Your task to perform on an android device: turn off location Image 0: 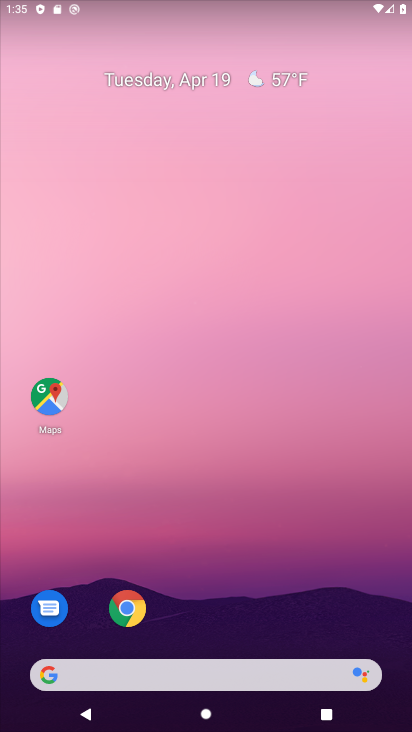
Step 0: drag from (197, 649) to (261, 158)
Your task to perform on an android device: turn off location Image 1: 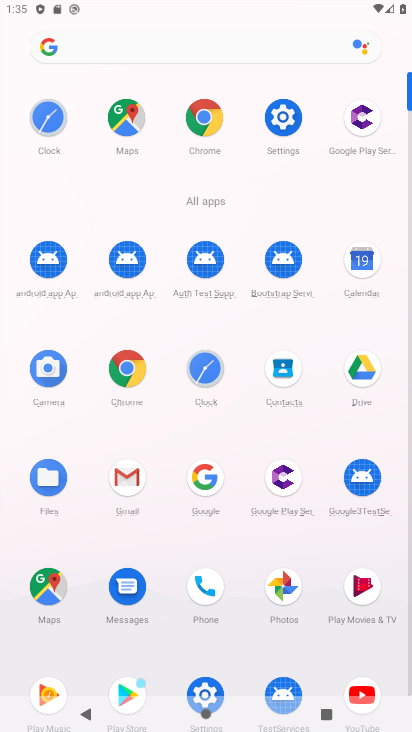
Step 1: click (205, 680)
Your task to perform on an android device: turn off location Image 2: 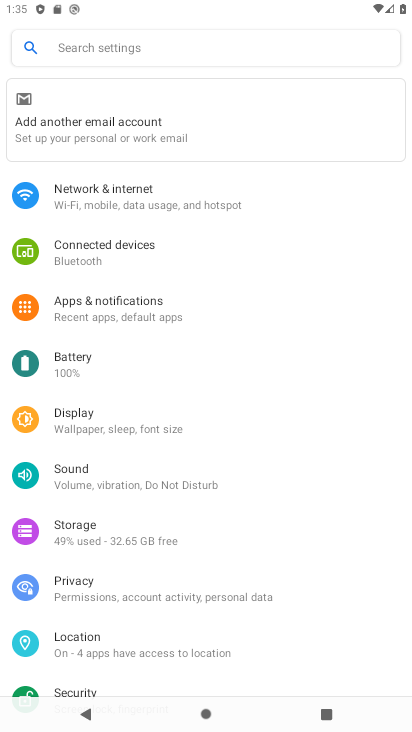
Step 2: click (182, 654)
Your task to perform on an android device: turn off location Image 3: 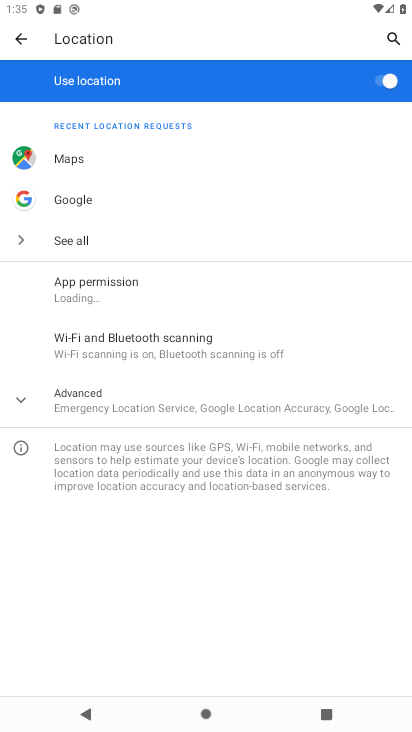
Step 3: click (372, 87)
Your task to perform on an android device: turn off location Image 4: 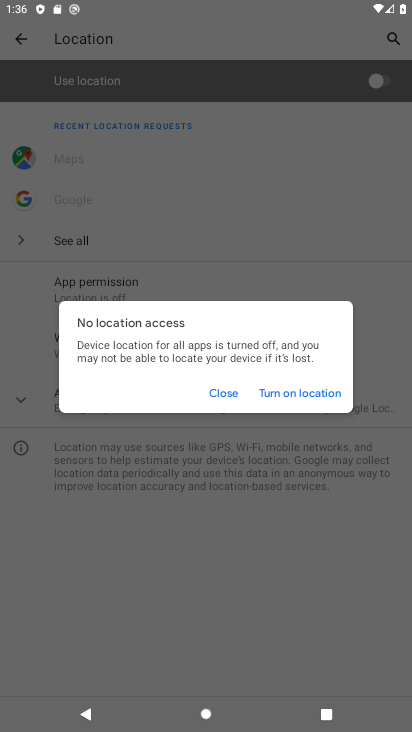
Step 4: press home button
Your task to perform on an android device: turn off location Image 5: 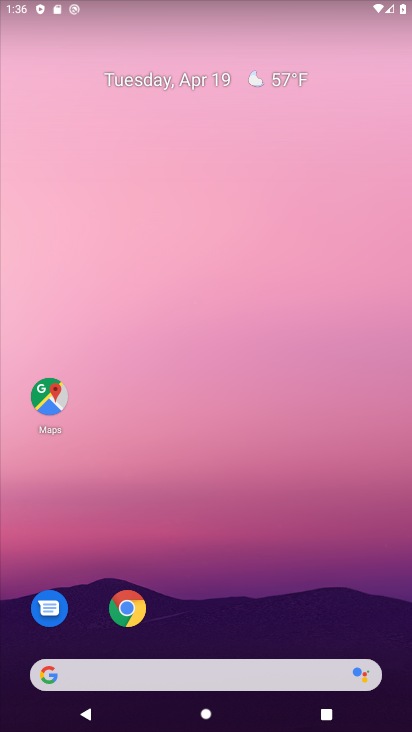
Step 5: drag from (261, 642) to (289, 146)
Your task to perform on an android device: turn off location Image 6: 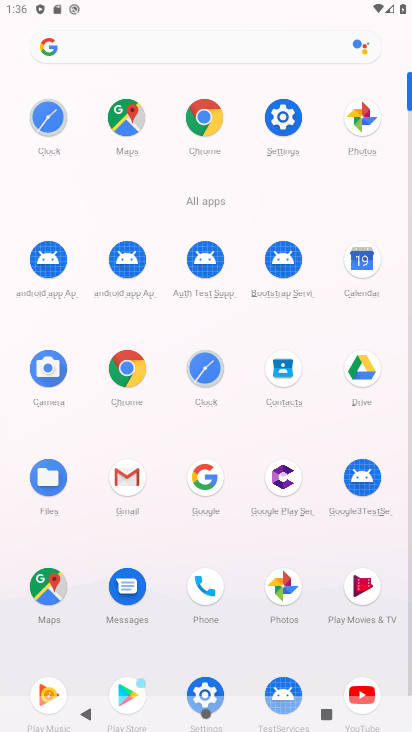
Step 6: click (284, 125)
Your task to perform on an android device: turn off location Image 7: 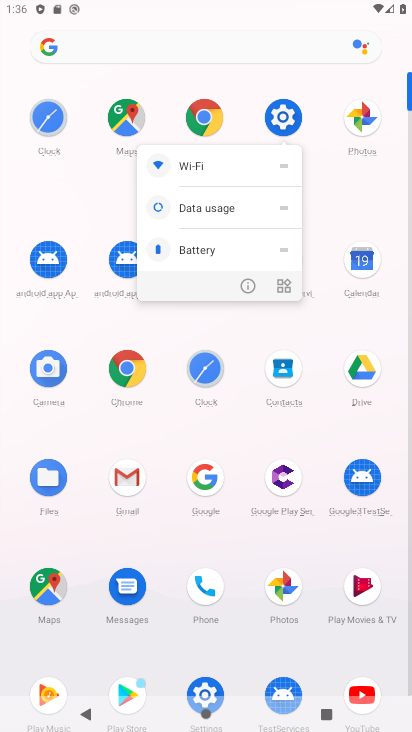
Step 7: click (280, 112)
Your task to perform on an android device: turn off location Image 8: 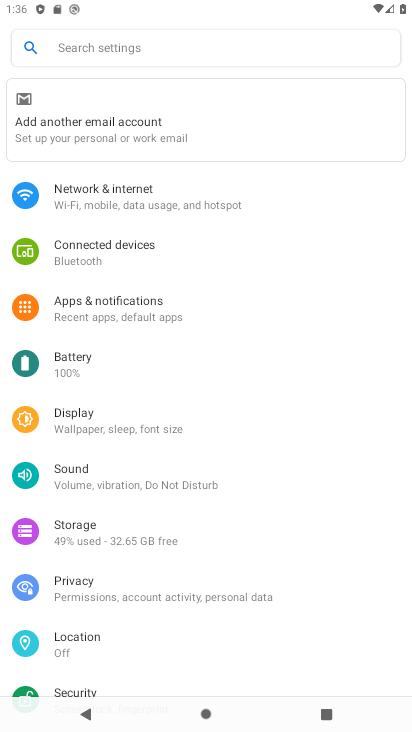
Step 8: click (147, 637)
Your task to perform on an android device: turn off location Image 9: 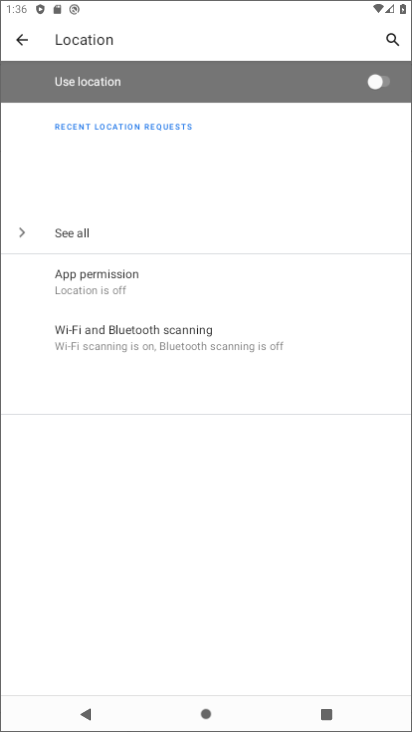
Step 9: task complete